Your task to perform on an android device: toggle javascript in the chrome app Image 0: 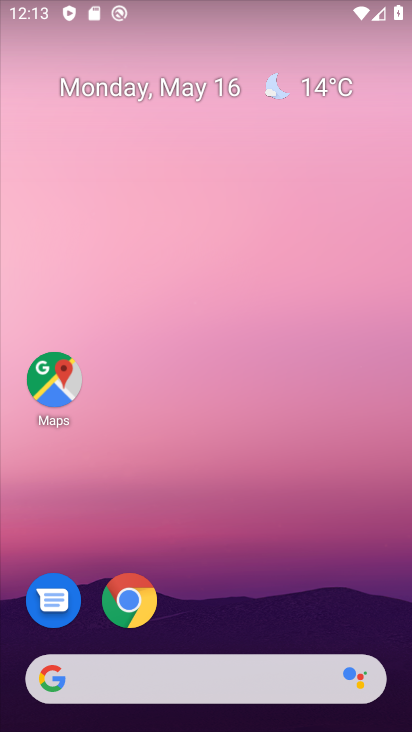
Step 0: click (130, 586)
Your task to perform on an android device: toggle javascript in the chrome app Image 1: 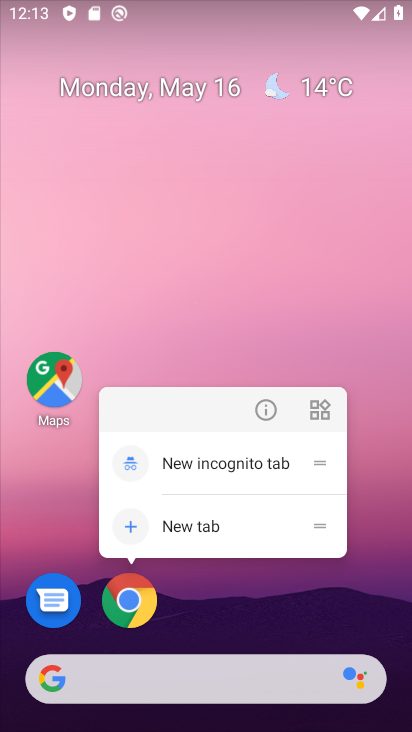
Step 1: click (128, 591)
Your task to perform on an android device: toggle javascript in the chrome app Image 2: 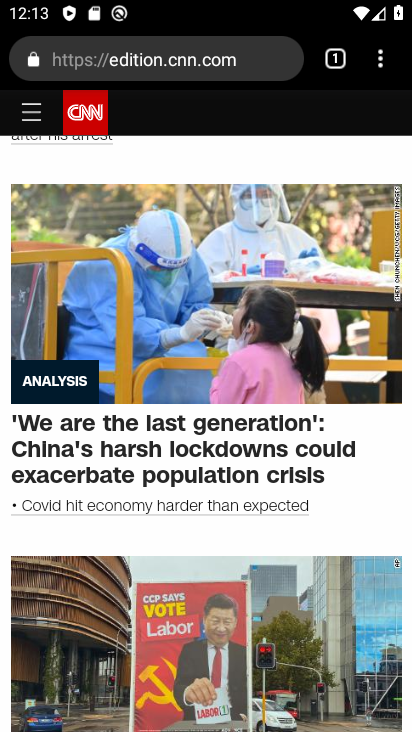
Step 2: click (377, 54)
Your task to perform on an android device: toggle javascript in the chrome app Image 3: 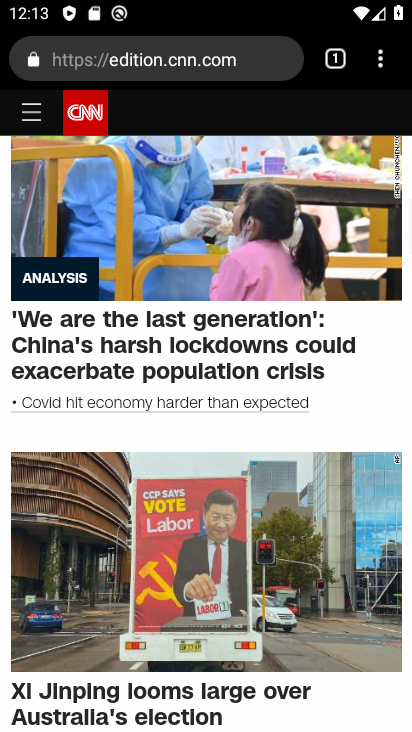
Step 3: click (380, 58)
Your task to perform on an android device: toggle javascript in the chrome app Image 4: 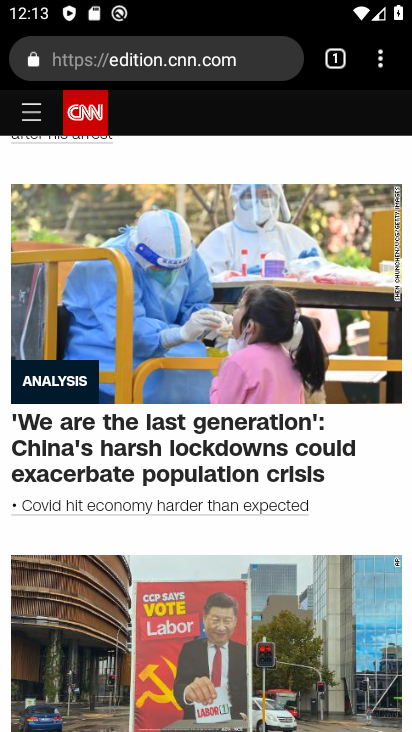
Step 4: click (375, 62)
Your task to perform on an android device: toggle javascript in the chrome app Image 5: 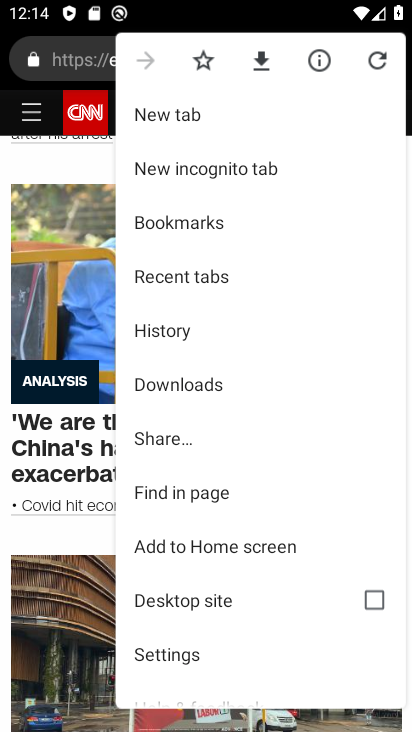
Step 5: click (207, 653)
Your task to perform on an android device: toggle javascript in the chrome app Image 6: 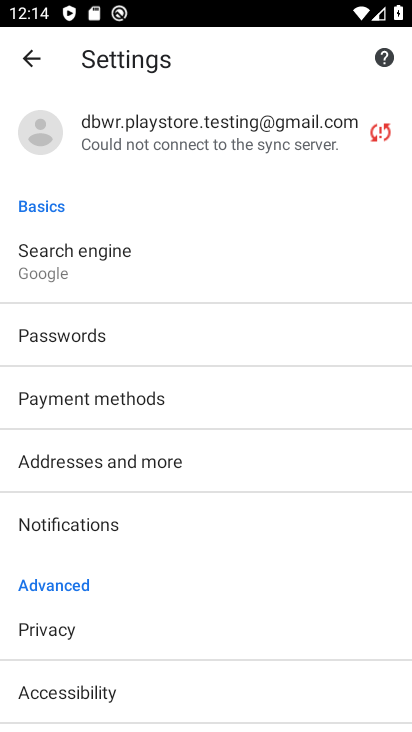
Step 6: drag from (215, 662) to (228, 152)
Your task to perform on an android device: toggle javascript in the chrome app Image 7: 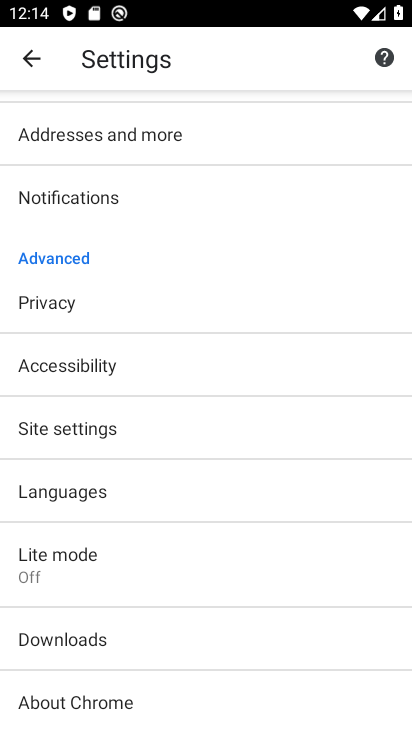
Step 7: click (132, 425)
Your task to perform on an android device: toggle javascript in the chrome app Image 8: 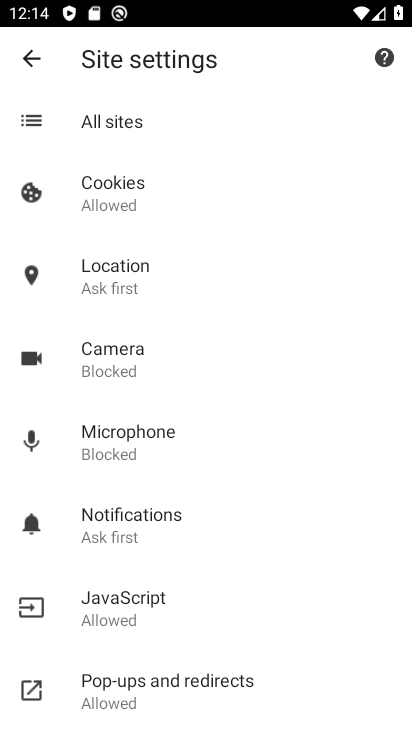
Step 8: click (154, 611)
Your task to perform on an android device: toggle javascript in the chrome app Image 9: 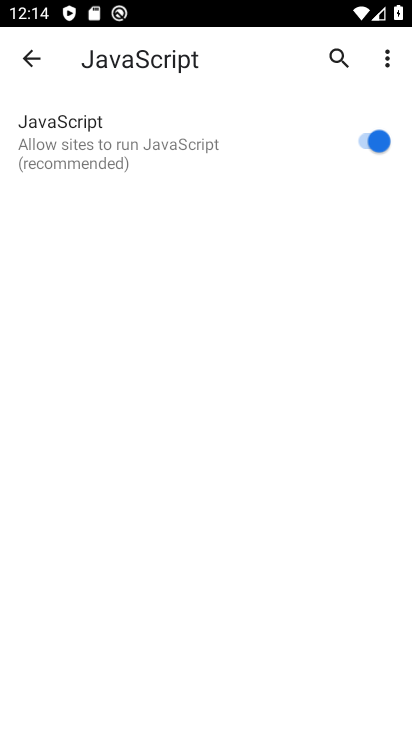
Step 9: task complete